Your task to perform on an android device: Search for vegetarian restaurants on Maps Image 0: 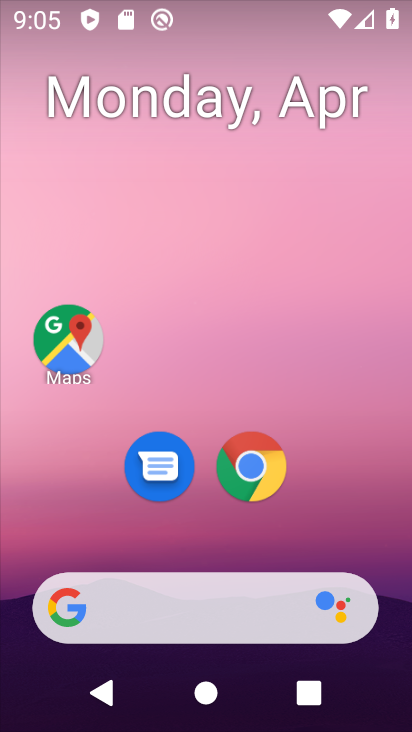
Step 0: click (69, 364)
Your task to perform on an android device: Search for vegetarian restaurants on Maps Image 1: 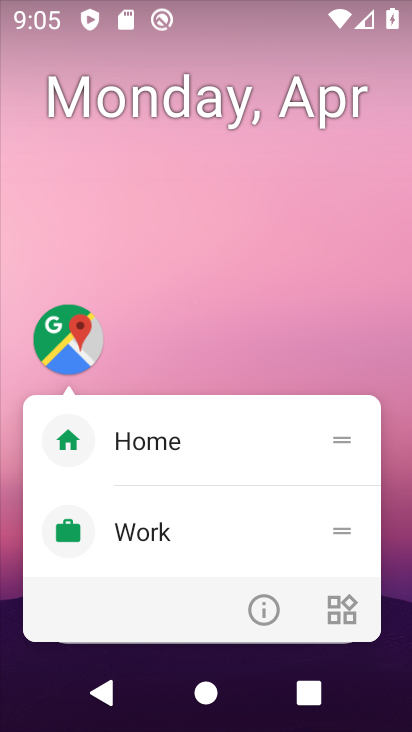
Step 1: click (69, 364)
Your task to perform on an android device: Search for vegetarian restaurants on Maps Image 2: 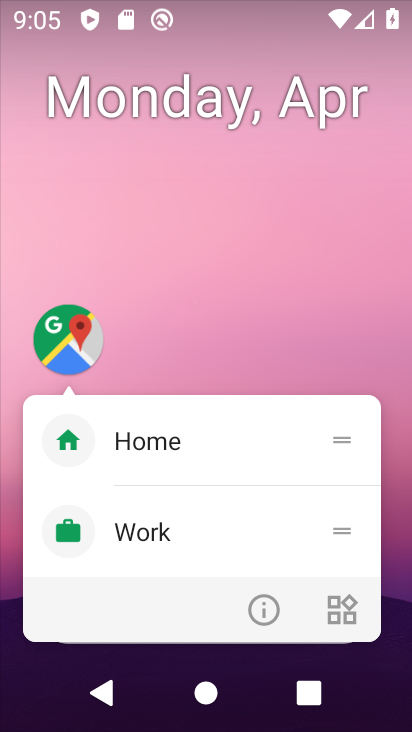
Step 2: click (71, 332)
Your task to perform on an android device: Search for vegetarian restaurants on Maps Image 3: 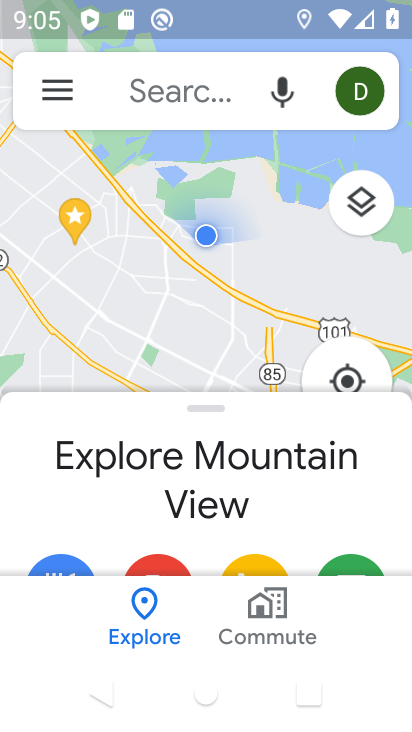
Step 3: click (166, 103)
Your task to perform on an android device: Search for vegetarian restaurants on Maps Image 4: 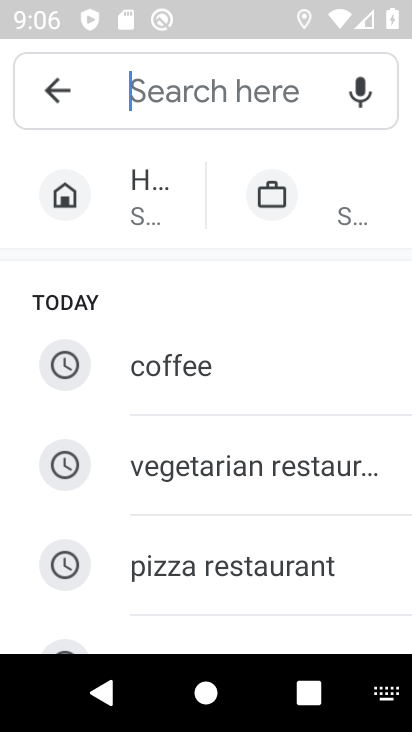
Step 4: type "vegetarian restaurants"
Your task to perform on an android device: Search for vegetarian restaurants on Maps Image 5: 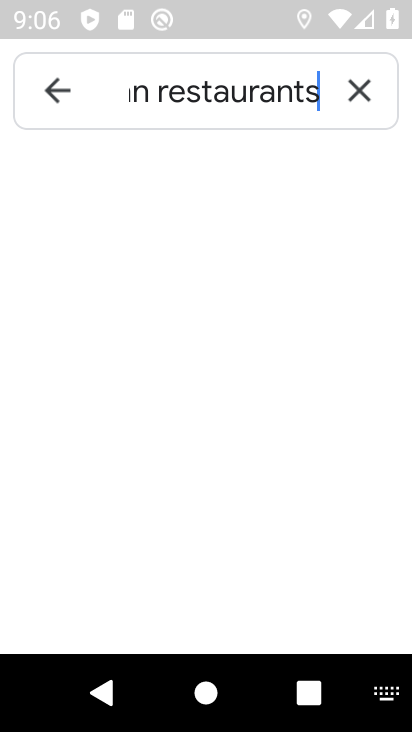
Step 5: type ""
Your task to perform on an android device: Search for vegetarian restaurants on Maps Image 6: 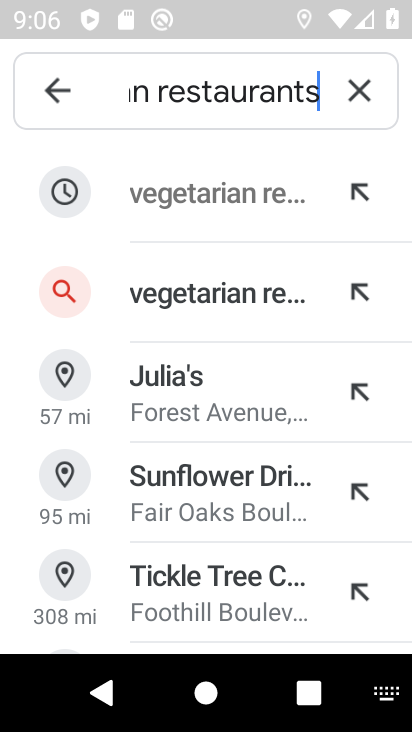
Step 6: click (190, 190)
Your task to perform on an android device: Search for vegetarian restaurants on Maps Image 7: 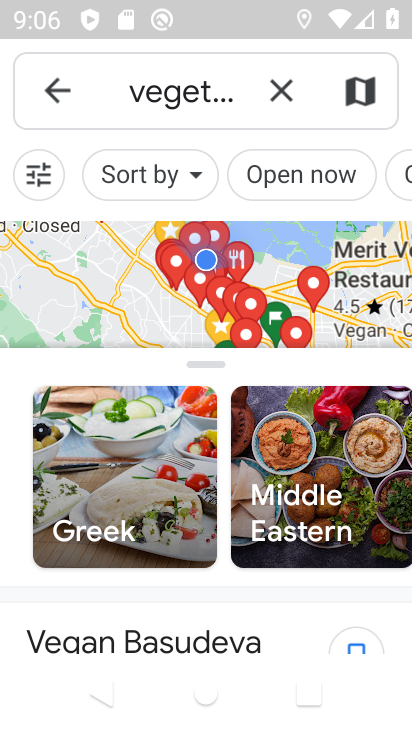
Step 7: task complete